Your task to perform on an android device: clear all cookies in the chrome app Image 0: 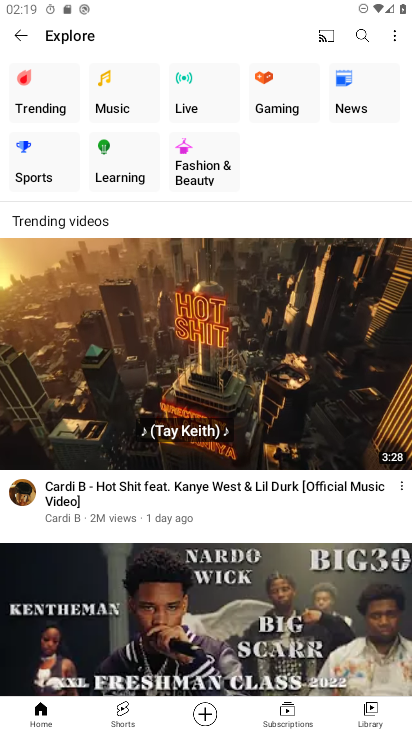
Step 0: press home button
Your task to perform on an android device: clear all cookies in the chrome app Image 1: 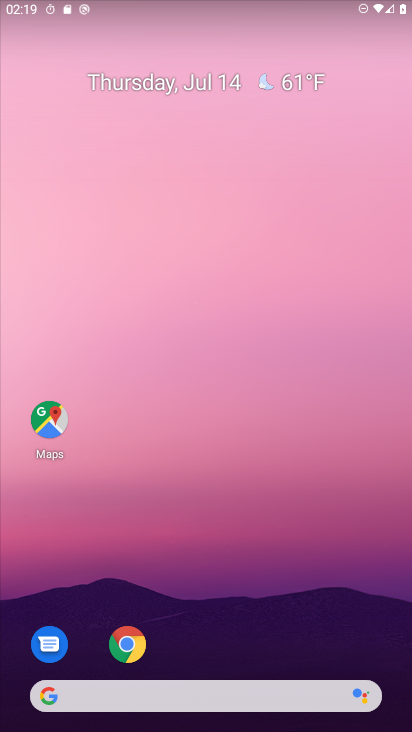
Step 1: drag from (304, 659) to (287, 147)
Your task to perform on an android device: clear all cookies in the chrome app Image 2: 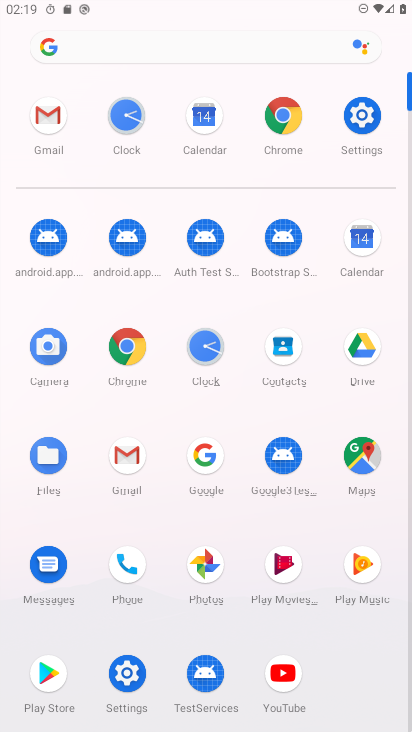
Step 2: click (283, 111)
Your task to perform on an android device: clear all cookies in the chrome app Image 3: 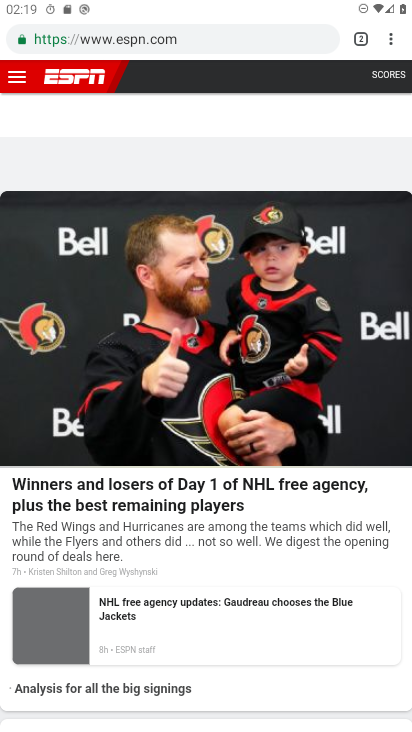
Step 3: task complete